Your task to perform on an android device: See recent photos Image 0: 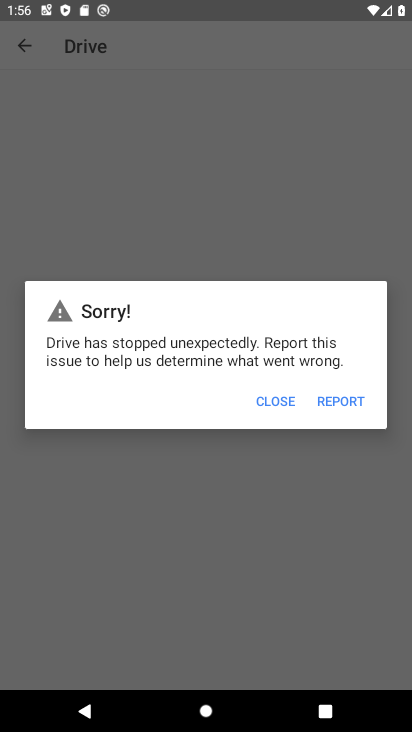
Step 0: press home button
Your task to perform on an android device: See recent photos Image 1: 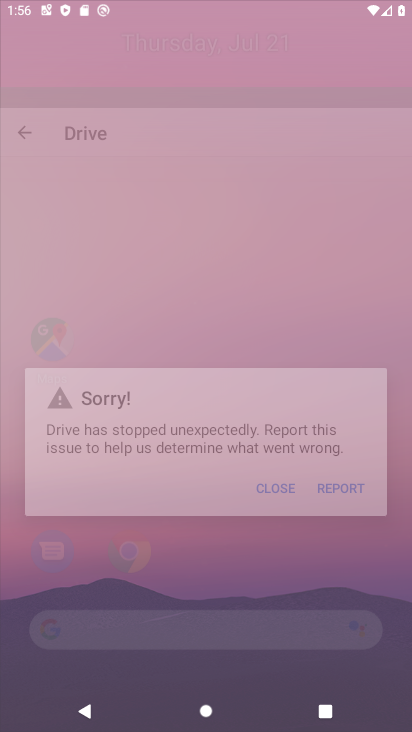
Step 1: press home button
Your task to perform on an android device: See recent photos Image 2: 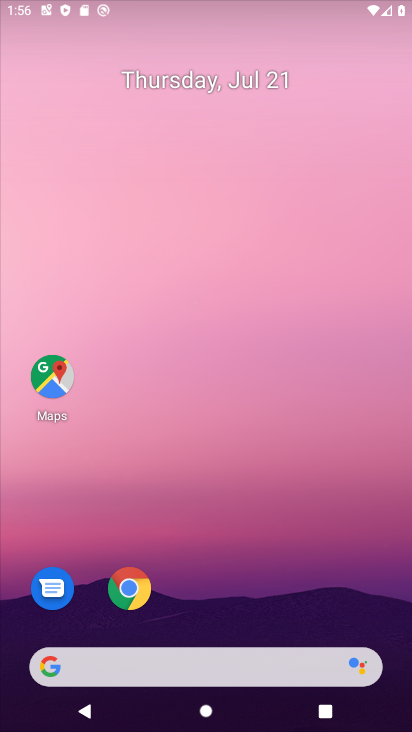
Step 2: drag from (223, 561) to (306, 68)
Your task to perform on an android device: See recent photos Image 3: 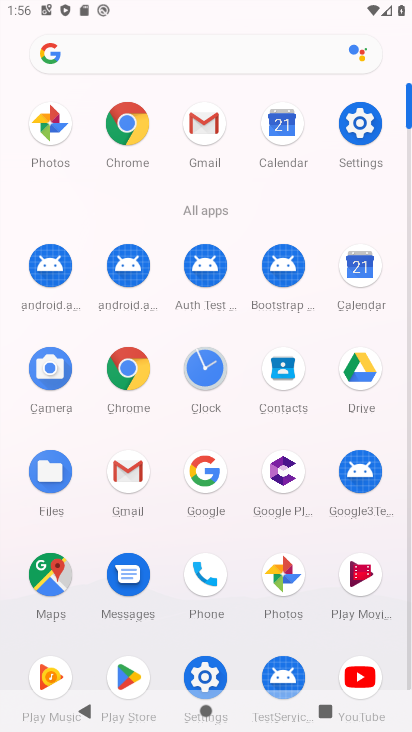
Step 3: click (286, 577)
Your task to perform on an android device: See recent photos Image 4: 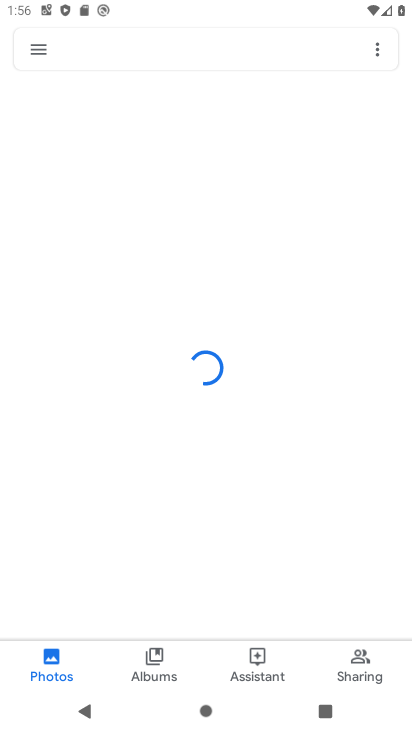
Step 4: drag from (218, 571) to (269, 392)
Your task to perform on an android device: See recent photos Image 5: 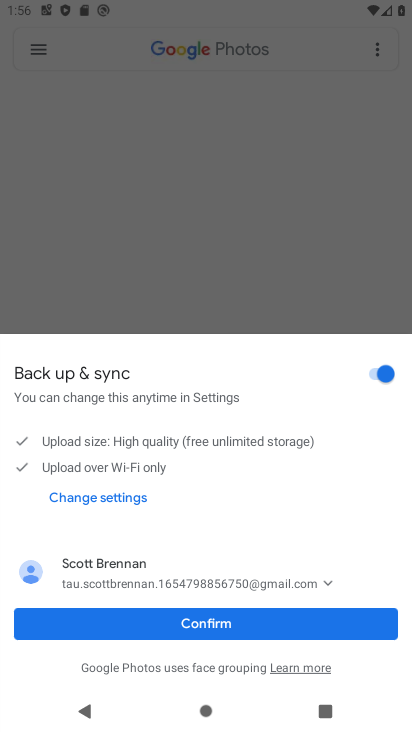
Step 5: click (179, 621)
Your task to perform on an android device: See recent photos Image 6: 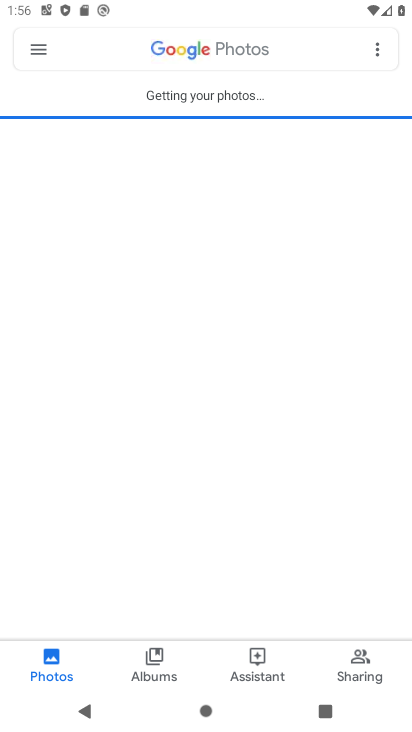
Step 6: task complete